Your task to perform on an android device: Go to battery settings Image 0: 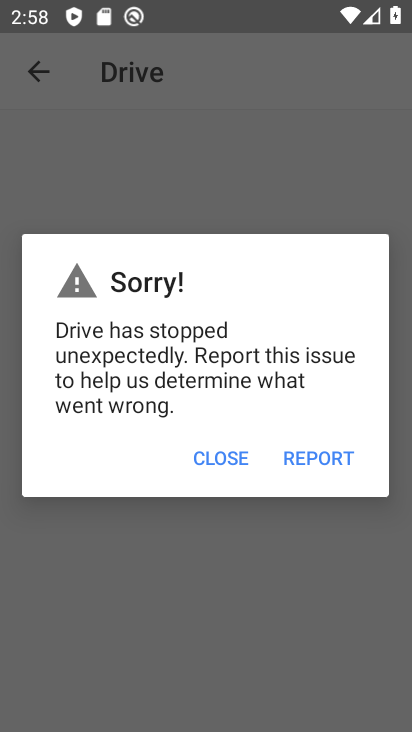
Step 0: press home button
Your task to perform on an android device: Go to battery settings Image 1: 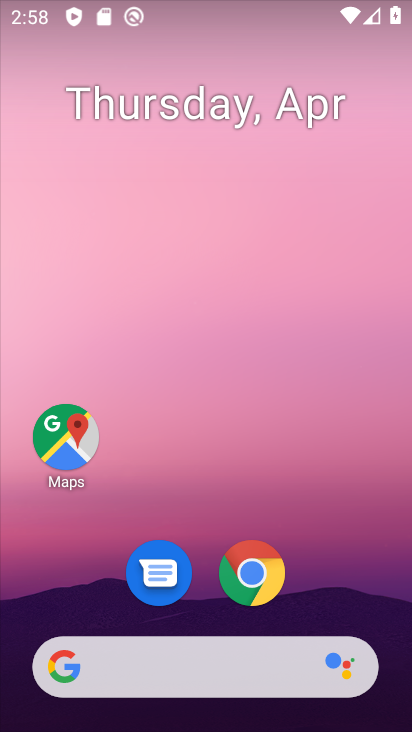
Step 1: drag from (318, 497) to (275, 257)
Your task to perform on an android device: Go to battery settings Image 2: 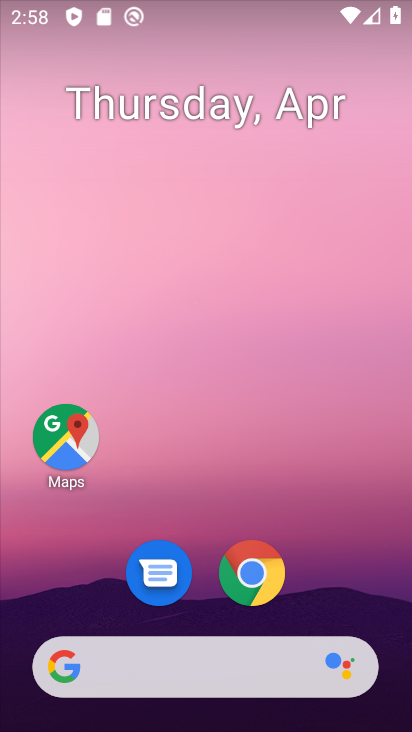
Step 2: drag from (322, 461) to (266, 156)
Your task to perform on an android device: Go to battery settings Image 3: 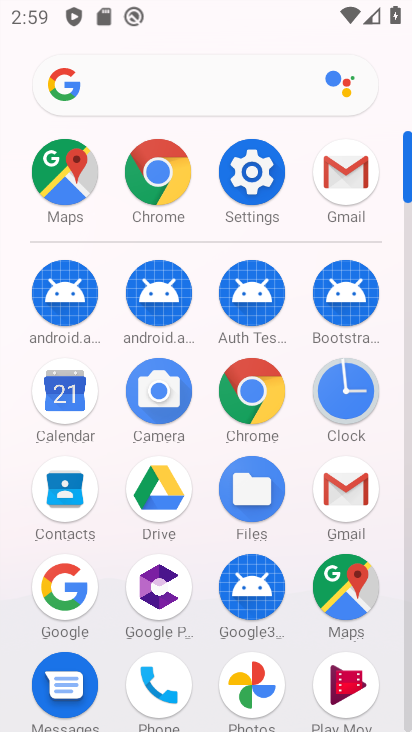
Step 3: click (257, 162)
Your task to perform on an android device: Go to battery settings Image 4: 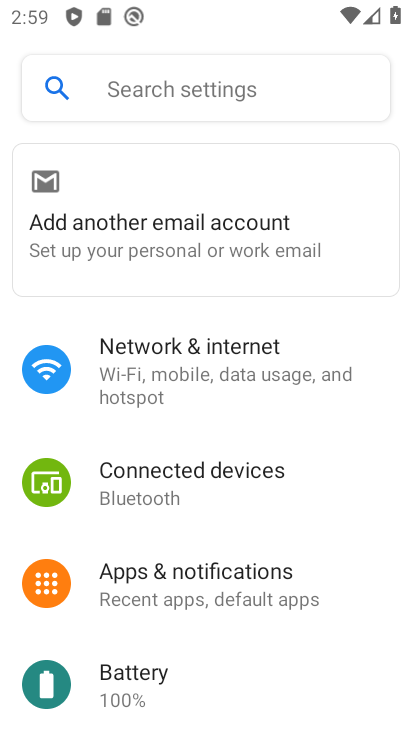
Step 4: click (126, 681)
Your task to perform on an android device: Go to battery settings Image 5: 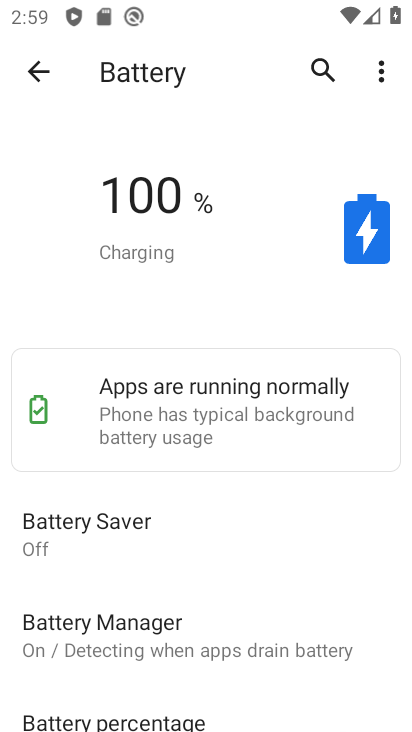
Step 5: task complete